Your task to perform on an android device: check out phone information Image 0: 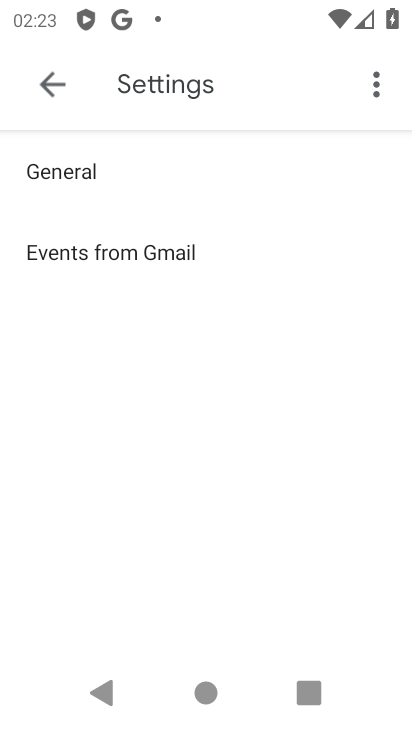
Step 0: press home button
Your task to perform on an android device: check out phone information Image 1: 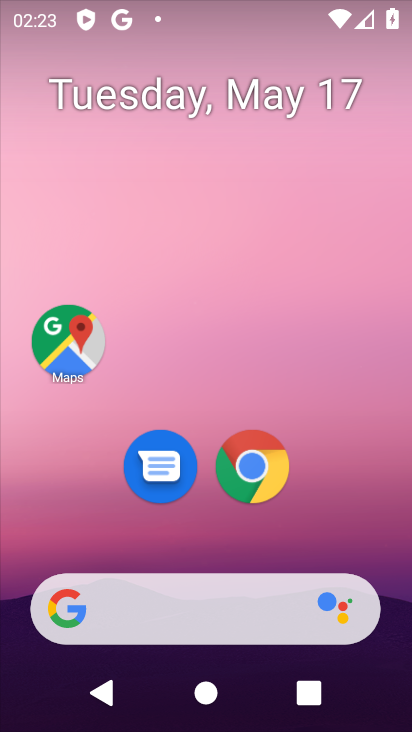
Step 1: drag from (315, 503) to (306, 42)
Your task to perform on an android device: check out phone information Image 2: 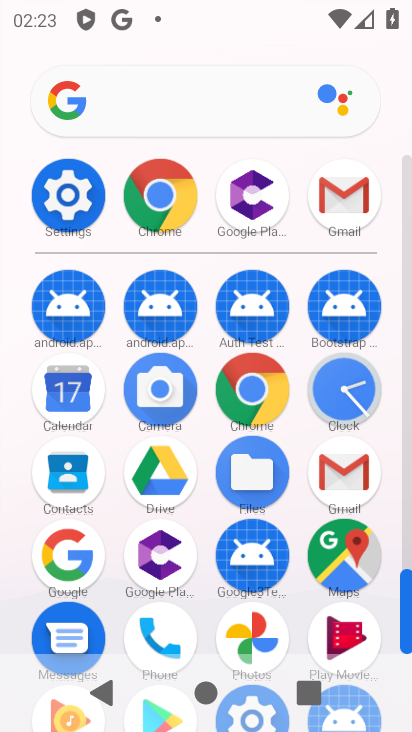
Step 2: click (170, 627)
Your task to perform on an android device: check out phone information Image 3: 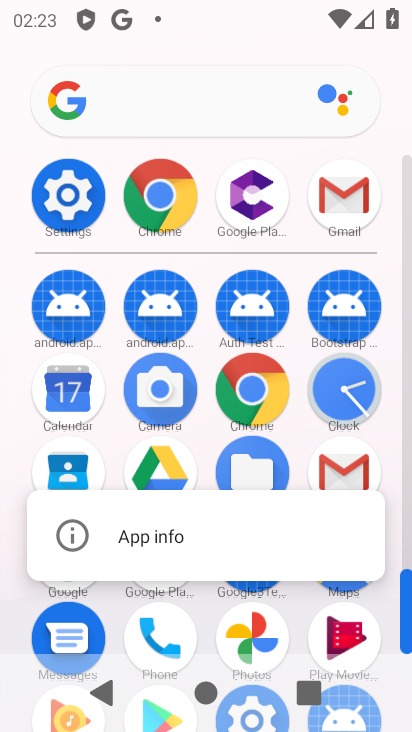
Step 3: click (205, 528)
Your task to perform on an android device: check out phone information Image 4: 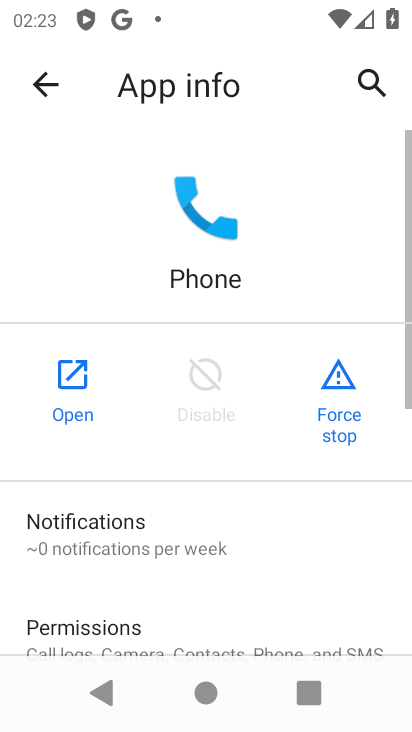
Step 4: task complete